Your task to perform on an android device: set the stopwatch Image 0: 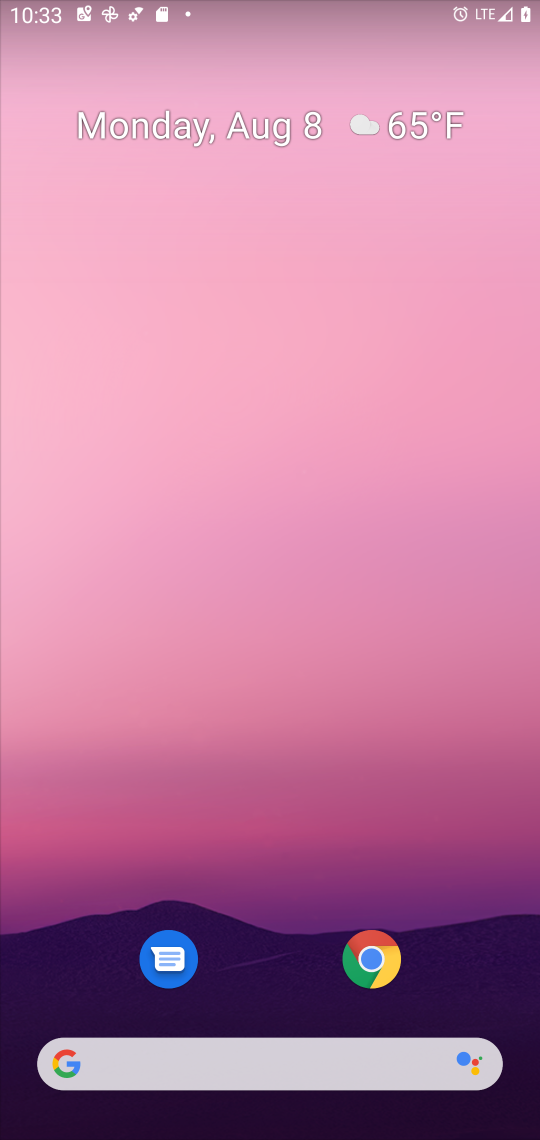
Step 0: drag from (501, 948) to (230, 81)
Your task to perform on an android device: set the stopwatch Image 1: 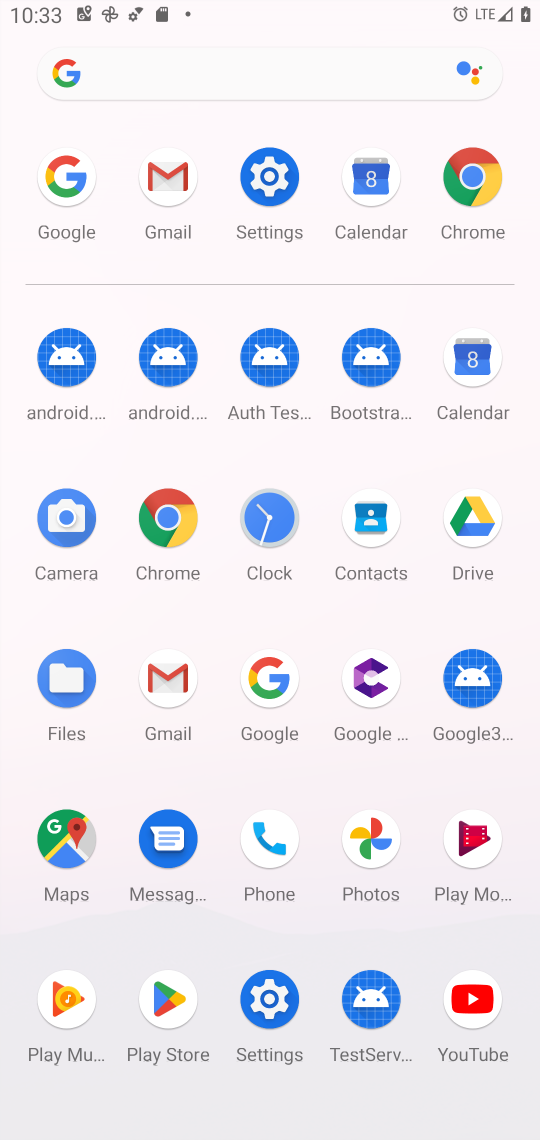
Step 1: click (259, 520)
Your task to perform on an android device: set the stopwatch Image 2: 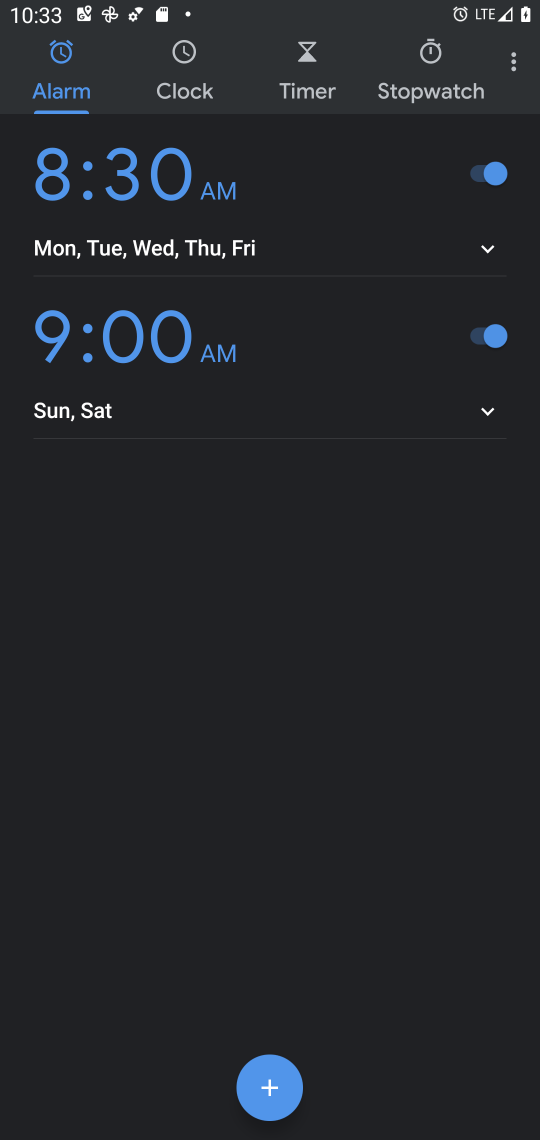
Step 2: click (439, 68)
Your task to perform on an android device: set the stopwatch Image 3: 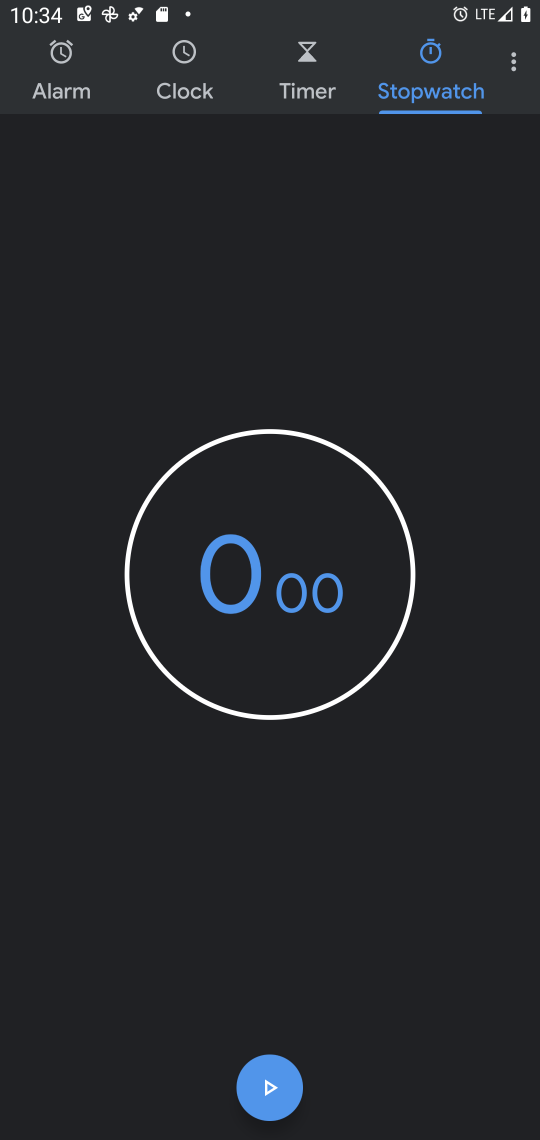
Step 3: click (265, 1078)
Your task to perform on an android device: set the stopwatch Image 4: 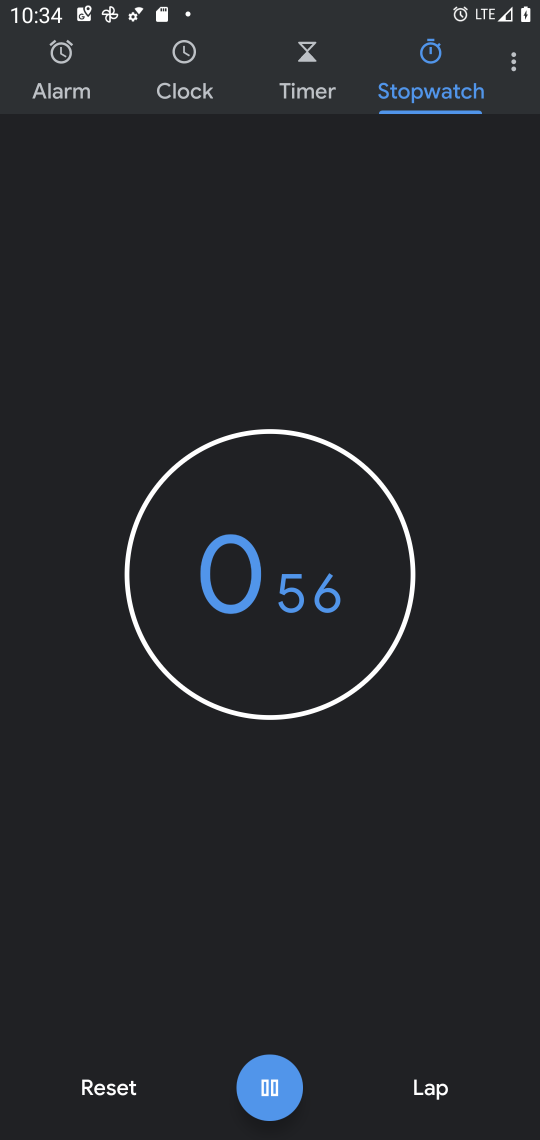
Step 4: click (265, 1078)
Your task to perform on an android device: set the stopwatch Image 5: 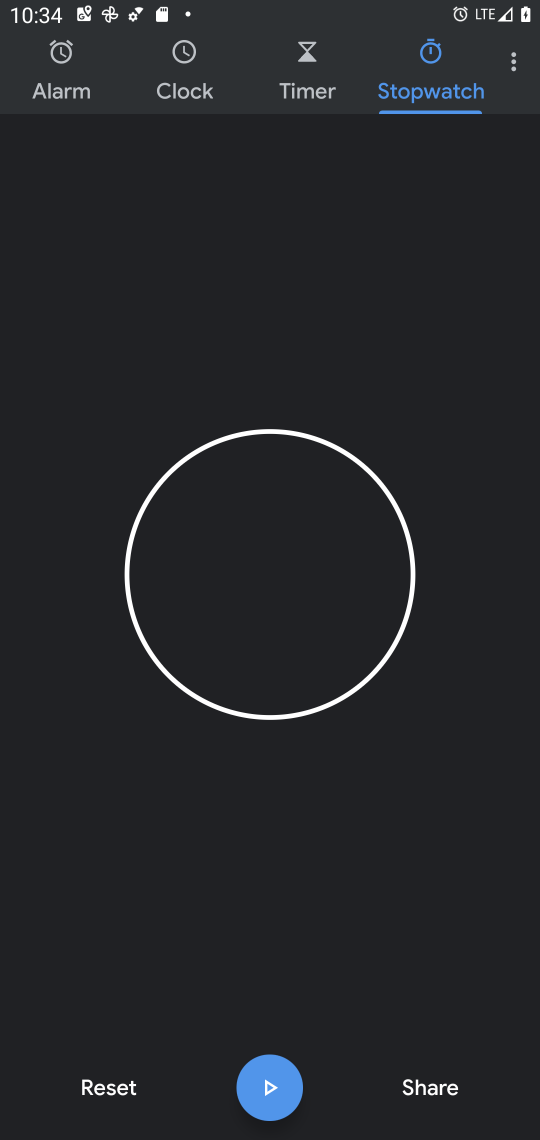
Step 5: task complete